Your task to perform on an android device: Go to Android settings Image 0: 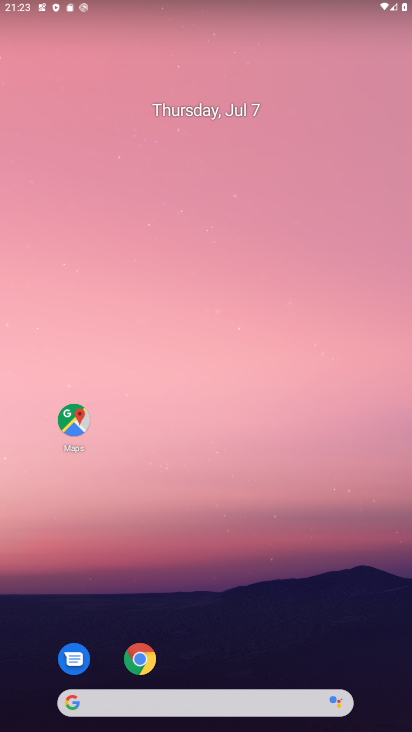
Step 0: drag from (228, 666) to (226, 22)
Your task to perform on an android device: Go to Android settings Image 1: 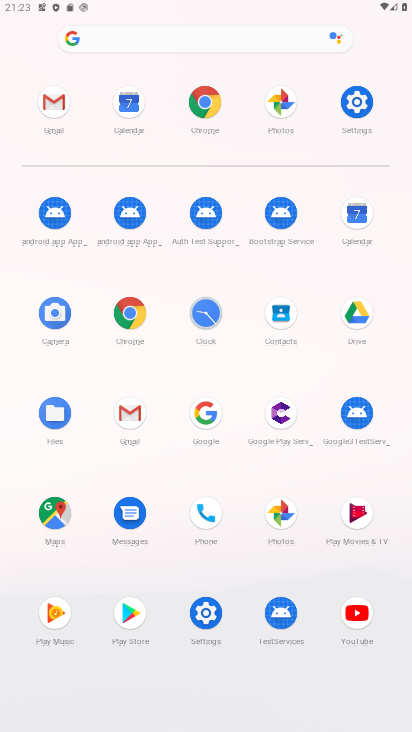
Step 1: click (207, 615)
Your task to perform on an android device: Go to Android settings Image 2: 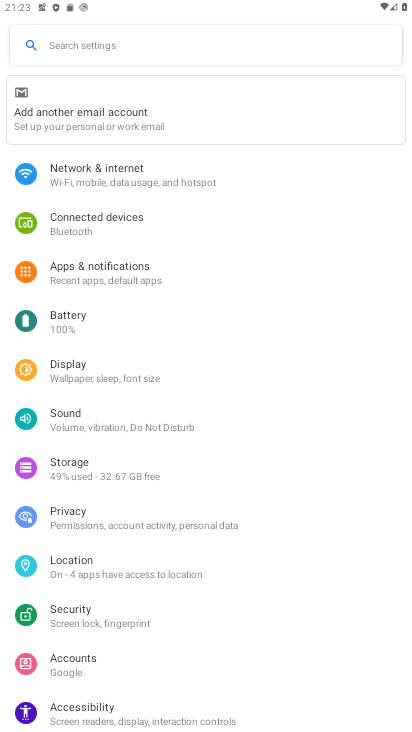
Step 2: drag from (178, 598) to (180, 416)
Your task to perform on an android device: Go to Android settings Image 3: 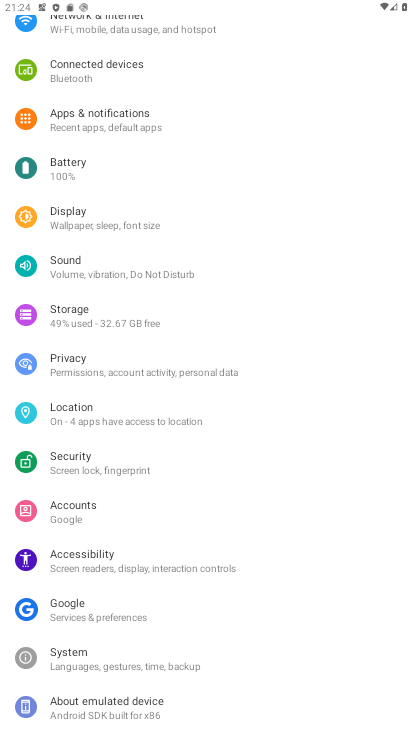
Step 3: click (100, 701)
Your task to perform on an android device: Go to Android settings Image 4: 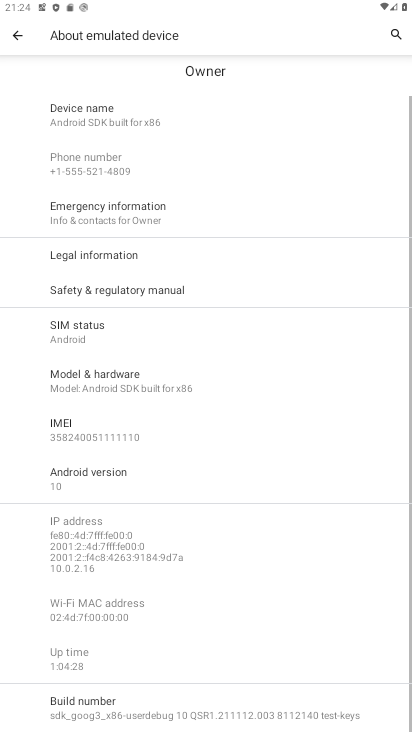
Step 4: click (94, 481)
Your task to perform on an android device: Go to Android settings Image 5: 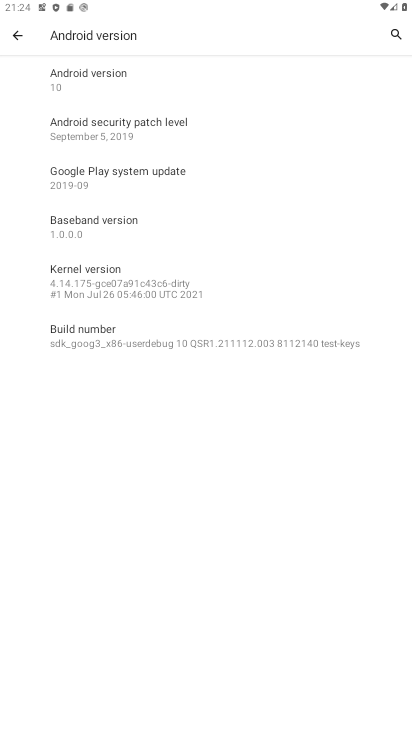
Step 5: task complete